Your task to perform on an android device: Search for Italian restaurants on Maps Image 0: 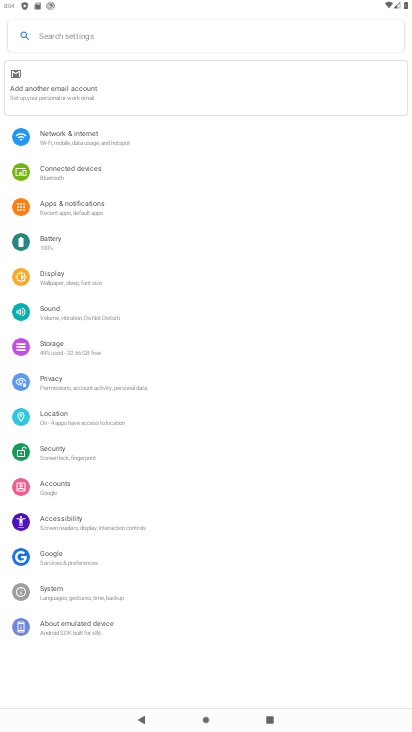
Step 0: press home button
Your task to perform on an android device: Search for Italian restaurants on Maps Image 1: 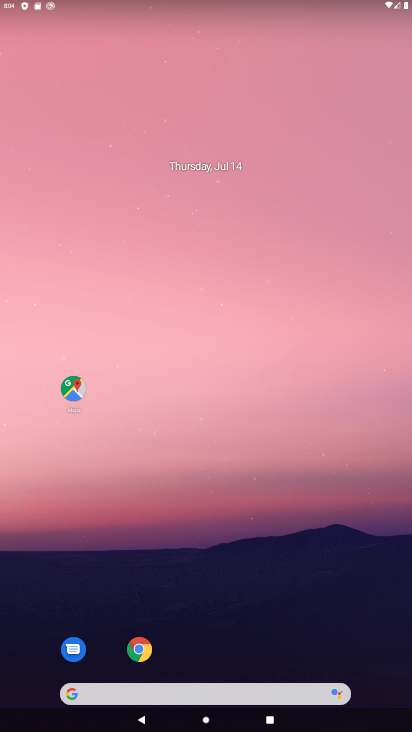
Step 1: drag from (185, 705) to (201, 324)
Your task to perform on an android device: Search for Italian restaurants on Maps Image 2: 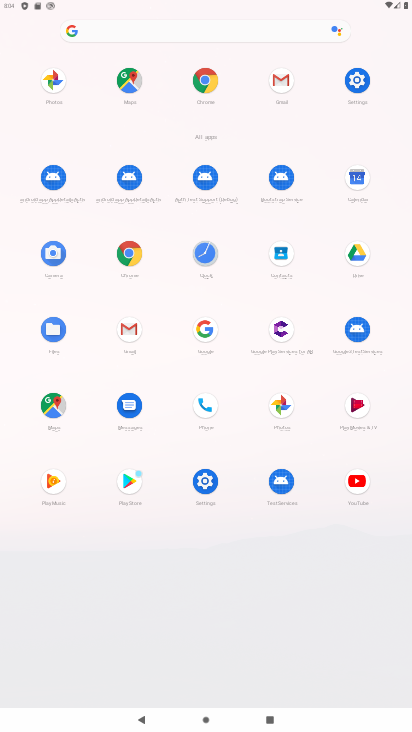
Step 2: click (56, 416)
Your task to perform on an android device: Search for Italian restaurants on Maps Image 3: 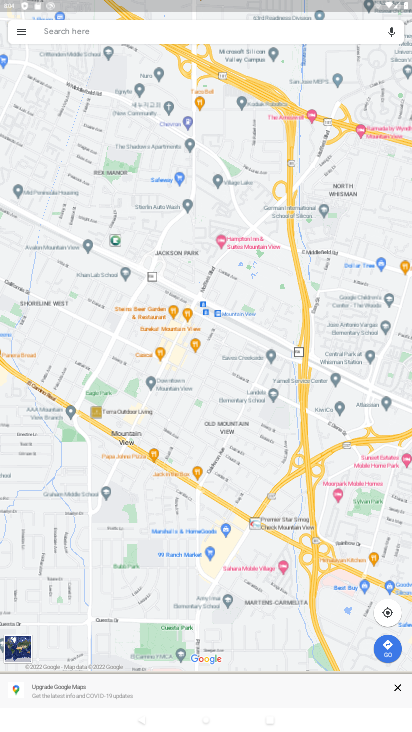
Step 3: click (137, 29)
Your task to perform on an android device: Search for Italian restaurants on Maps Image 4: 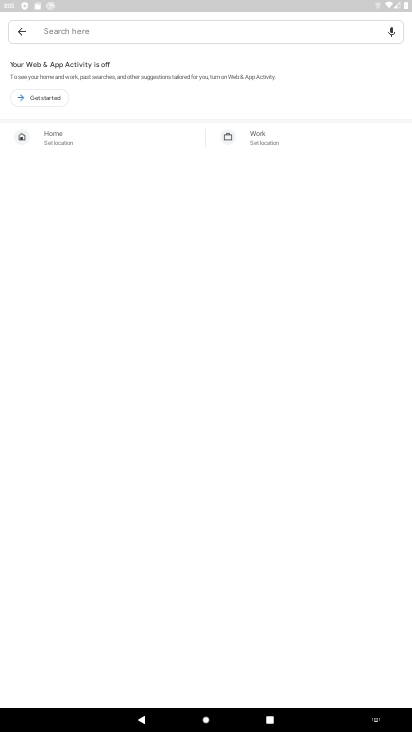
Step 4: click (71, 30)
Your task to perform on an android device: Search for Italian restaurants on Maps Image 5: 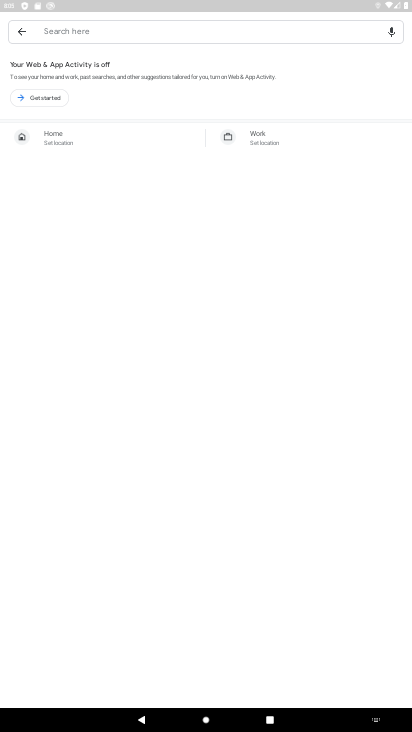
Step 5: type " Italian restaurants "
Your task to perform on an android device: Search for Italian restaurants on Maps Image 6: 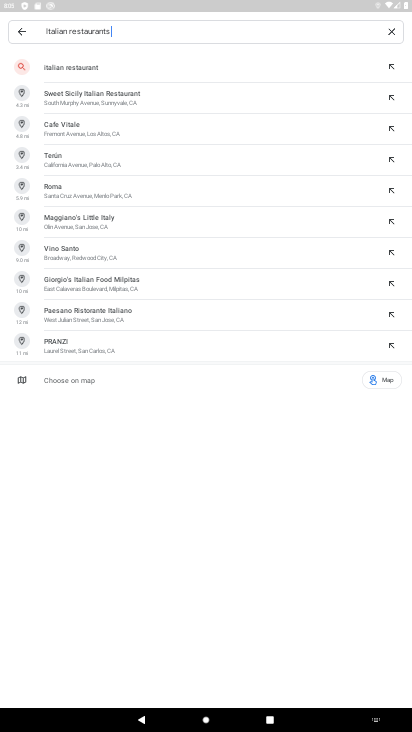
Step 6: click (61, 68)
Your task to perform on an android device: Search for Italian restaurants on Maps Image 7: 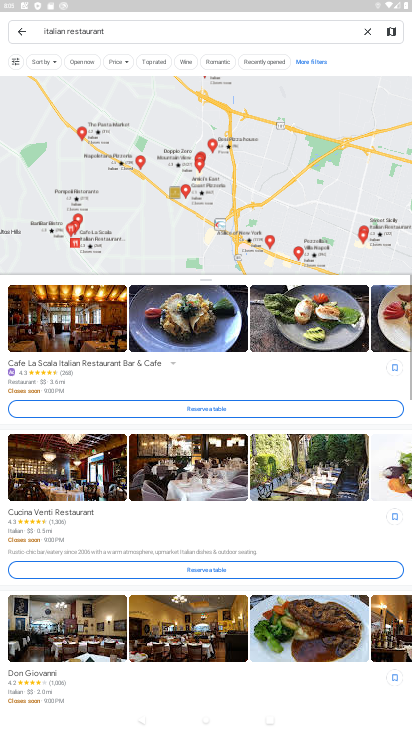
Step 7: task complete